Your task to perform on an android device: star an email in the gmail app Image 0: 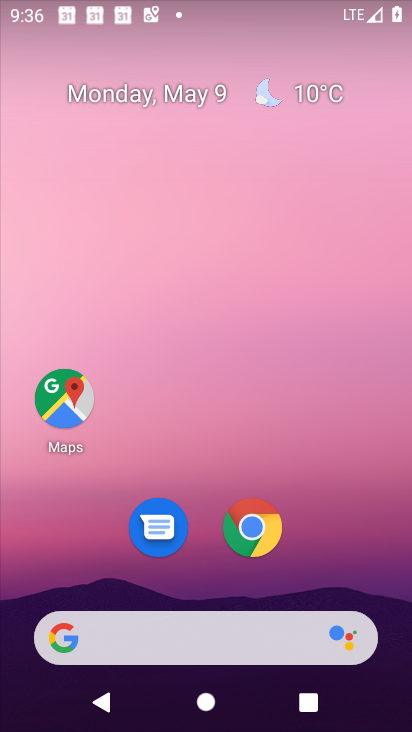
Step 0: drag from (197, 595) to (267, 72)
Your task to perform on an android device: star an email in the gmail app Image 1: 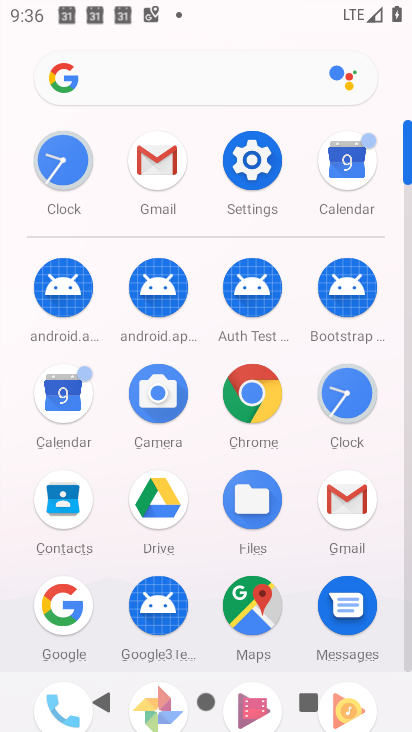
Step 1: click (352, 494)
Your task to perform on an android device: star an email in the gmail app Image 2: 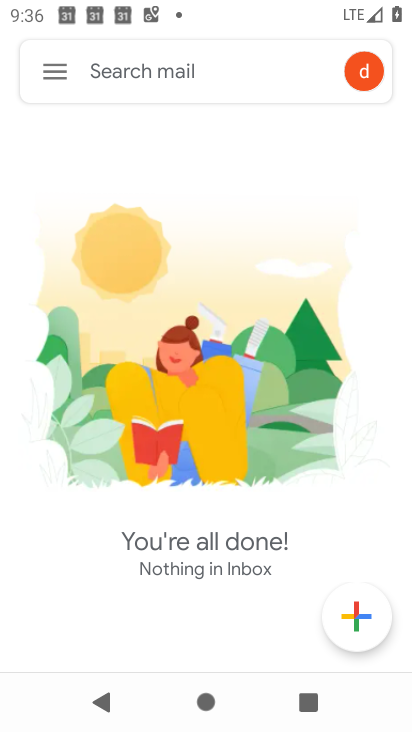
Step 2: click (54, 80)
Your task to perform on an android device: star an email in the gmail app Image 3: 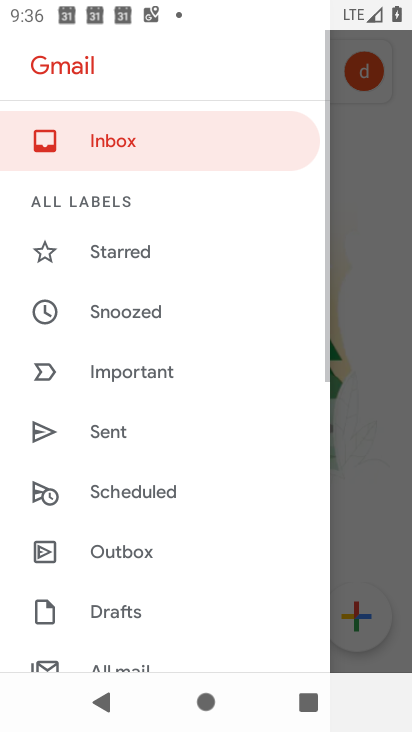
Step 3: drag from (140, 558) to (184, 273)
Your task to perform on an android device: star an email in the gmail app Image 4: 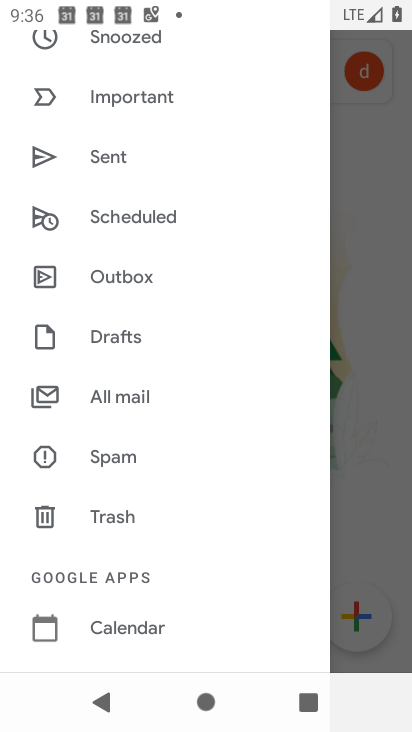
Step 4: click (153, 401)
Your task to perform on an android device: star an email in the gmail app Image 5: 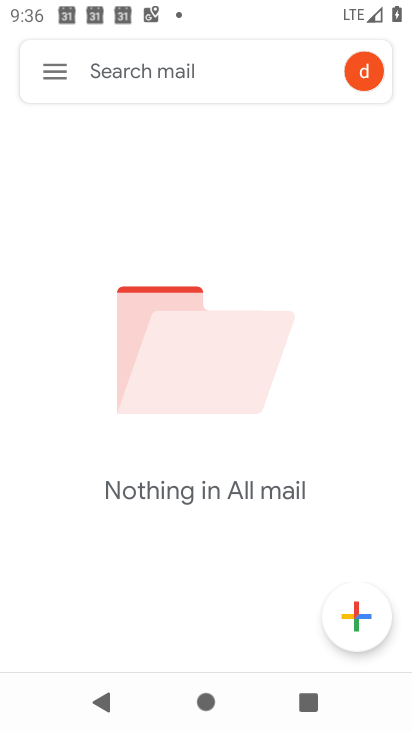
Step 5: task complete